Your task to perform on an android device: make emails show in primary in the gmail app Image 0: 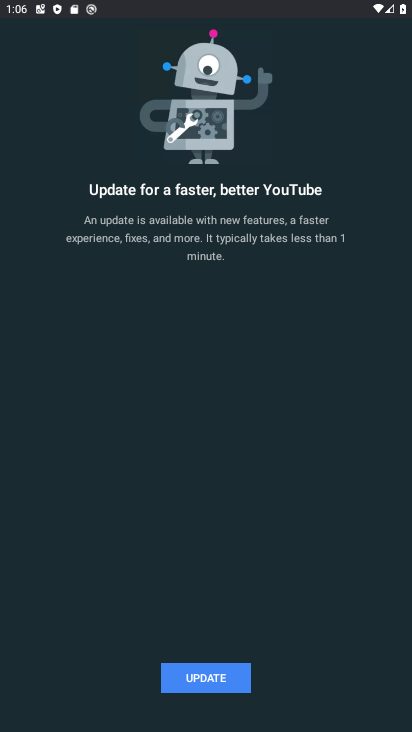
Step 0: press home button
Your task to perform on an android device: make emails show in primary in the gmail app Image 1: 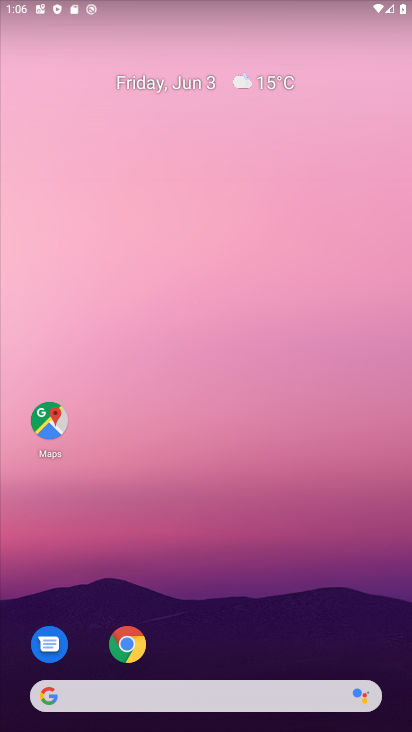
Step 1: drag from (196, 616) to (264, 18)
Your task to perform on an android device: make emails show in primary in the gmail app Image 2: 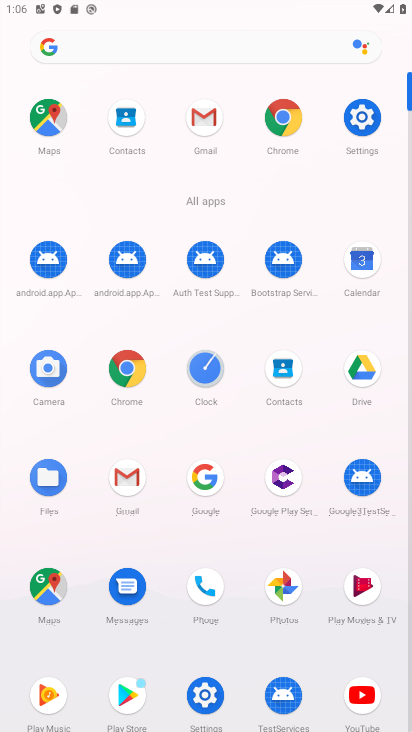
Step 2: click (128, 490)
Your task to perform on an android device: make emails show in primary in the gmail app Image 3: 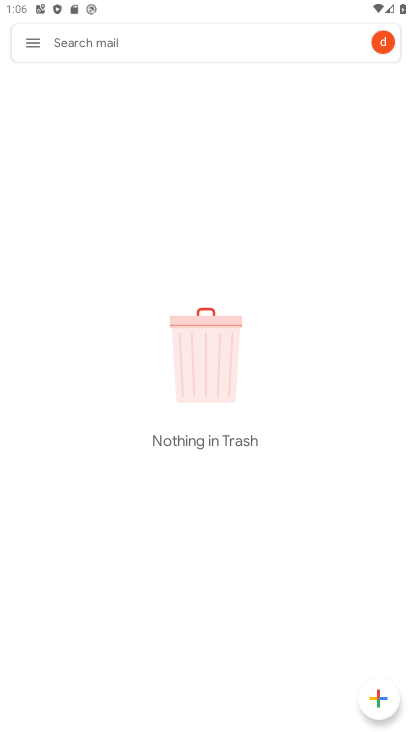
Step 3: click (37, 47)
Your task to perform on an android device: make emails show in primary in the gmail app Image 4: 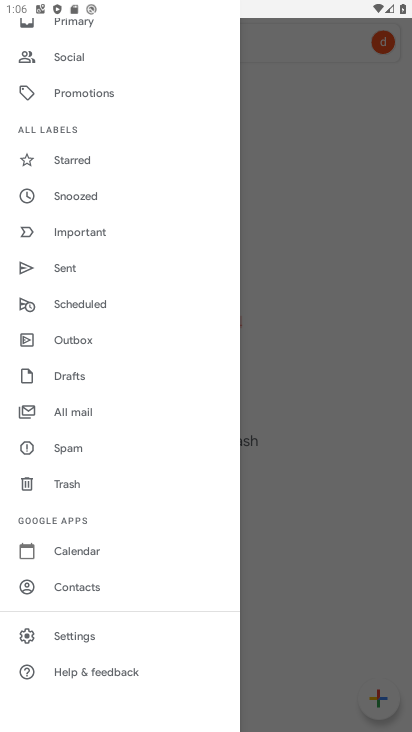
Step 4: click (92, 632)
Your task to perform on an android device: make emails show in primary in the gmail app Image 5: 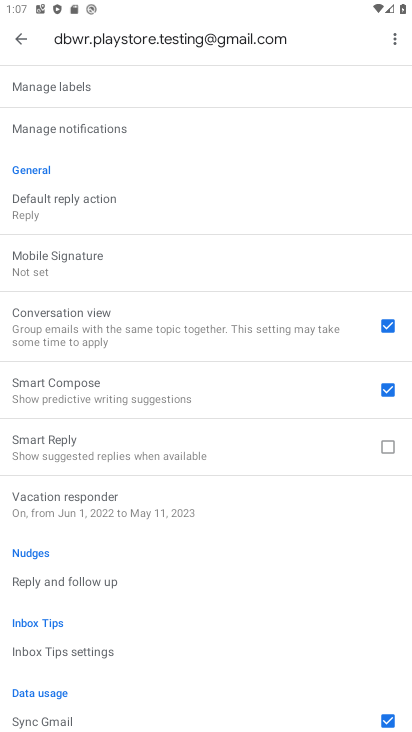
Step 5: drag from (88, 166) to (62, 715)
Your task to perform on an android device: make emails show in primary in the gmail app Image 6: 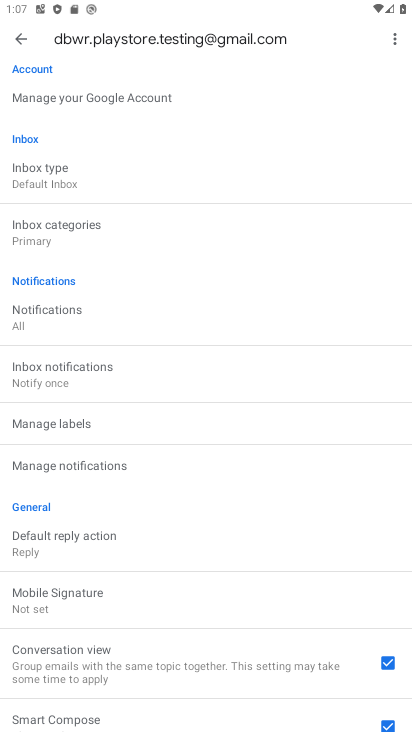
Step 6: click (128, 228)
Your task to perform on an android device: make emails show in primary in the gmail app Image 7: 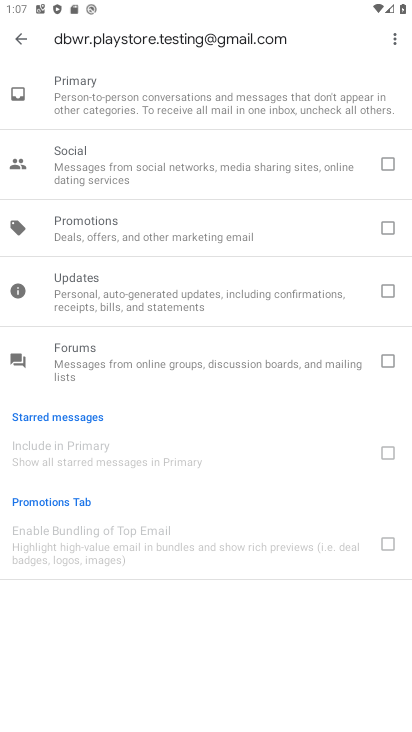
Step 7: task complete